Your task to perform on an android device: Open Reddit.com Image 0: 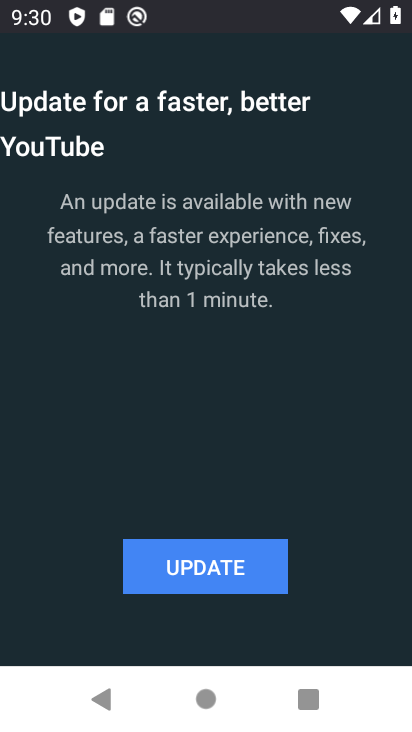
Step 0: press home button
Your task to perform on an android device: Open Reddit.com Image 1: 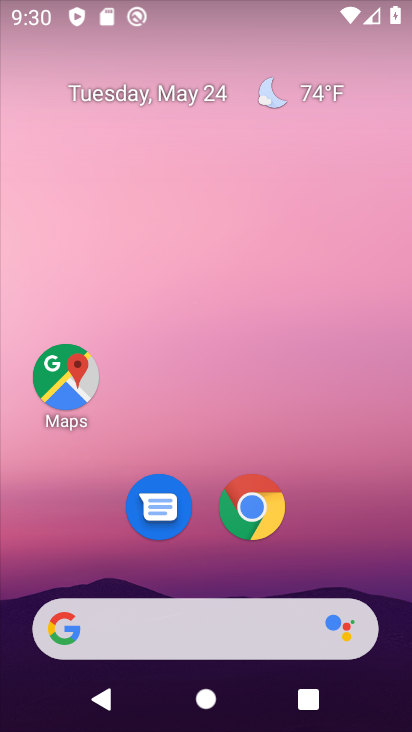
Step 1: click (240, 498)
Your task to perform on an android device: Open Reddit.com Image 2: 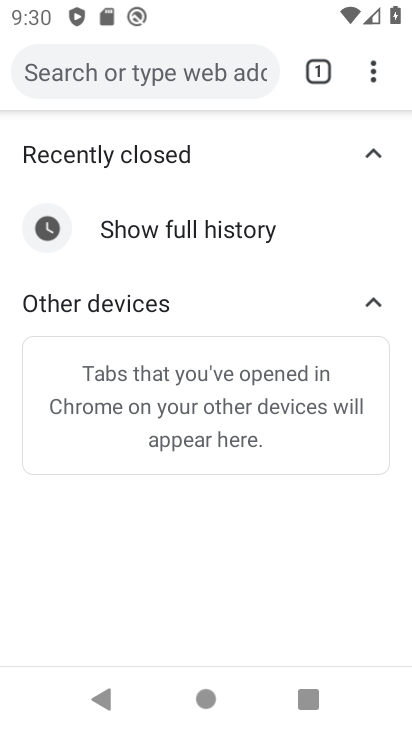
Step 2: click (374, 79)
Your task to perform on an android device: Open Reddit.com Image 3: 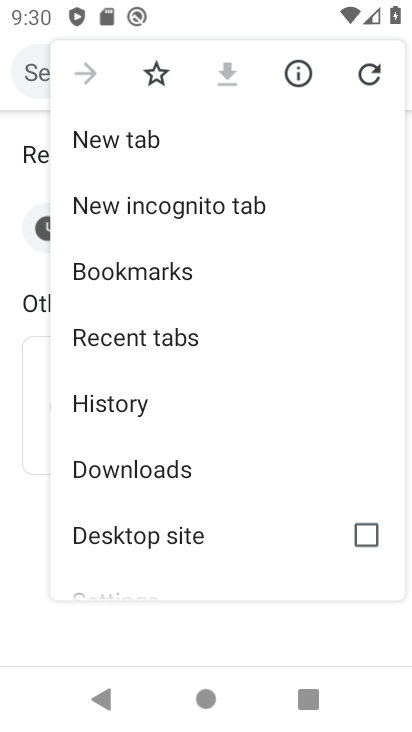
Step 3: click (109, 138)
Your task to perform on an android device: Open Reddit.com Image 4: 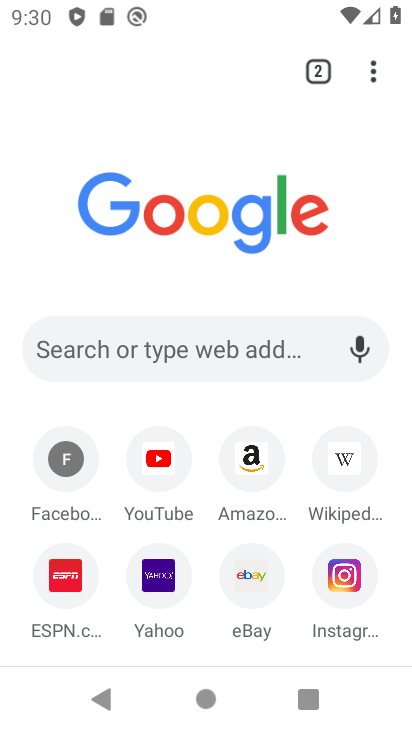
Step 4: click (221, 342)
Your task to perform on an android device: Open Reddit.com Image 5: 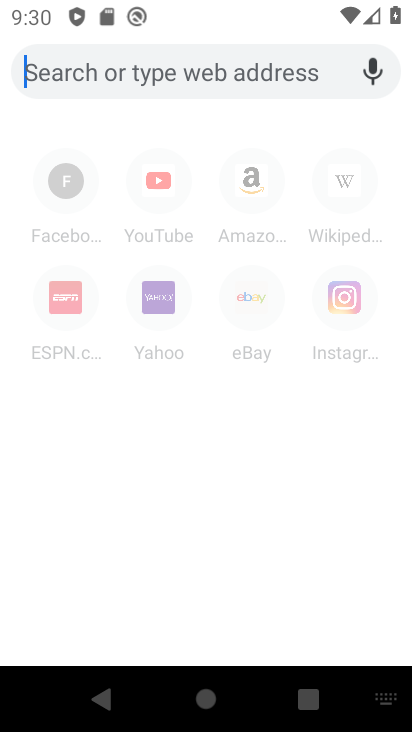
Step 5: type "Reddit.com"
Your task to perform on an android device: Open Reddit.com Image 6: 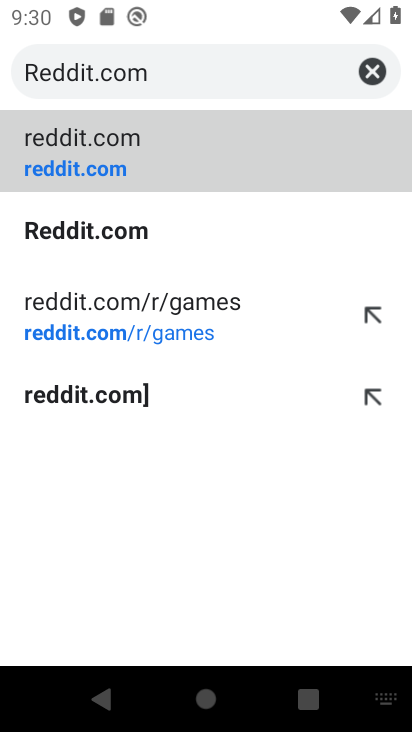
Step 6: click (77, 157)
Your task to perform on an android device: Open Reddit.com Image 7: 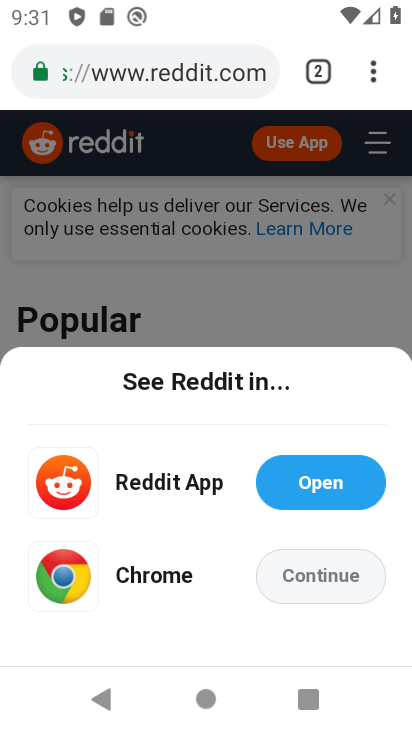
Step 7: task complete